Your task to perform on an android device: turn off data saver in the chrome app Image 0: 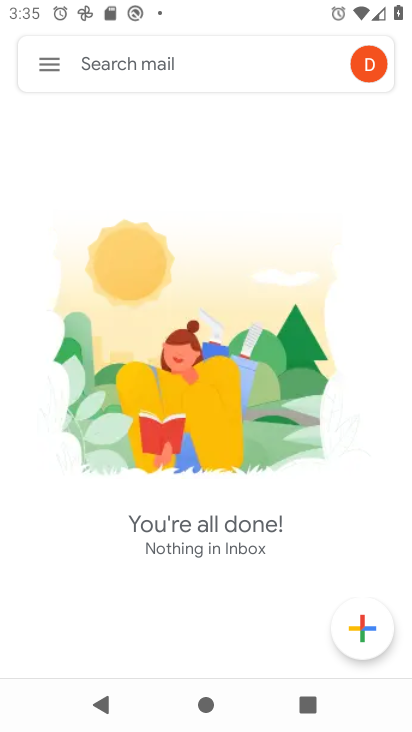
Step 0: press home button
Your task to perform on an android device: turn off data saver in the chrome app Image 1: 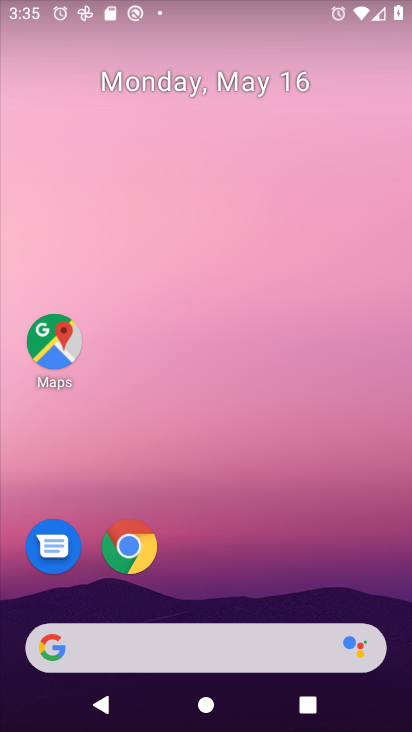
Step 1: drag from (363, 568) to (351, 173)
Your task to perform on an android device: turn off data saver in the chrome app Image 2: 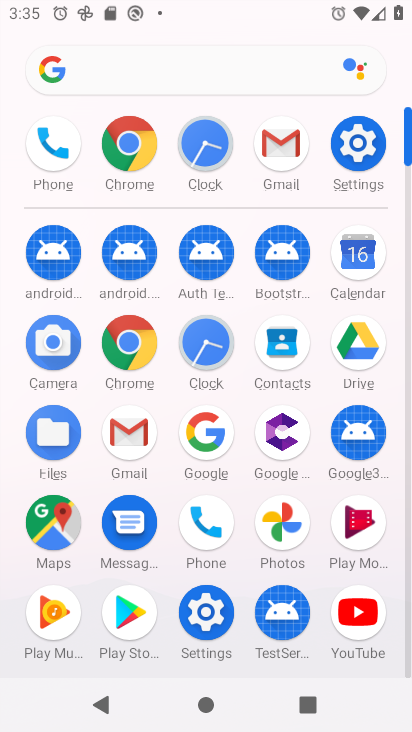
Step 2: click (135, 362)
Your task to perform on an android device: turn off data saver in the chrome app Image 3: 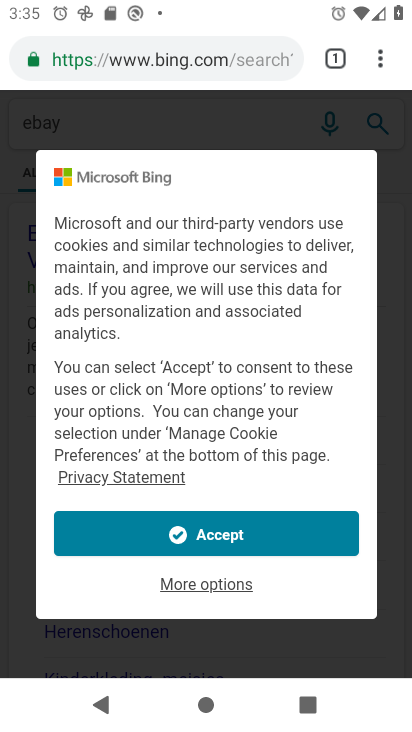
Step 3: click (378, 62)
Your task to perform on an android device: turn off data saver in the chrome app Image 4: 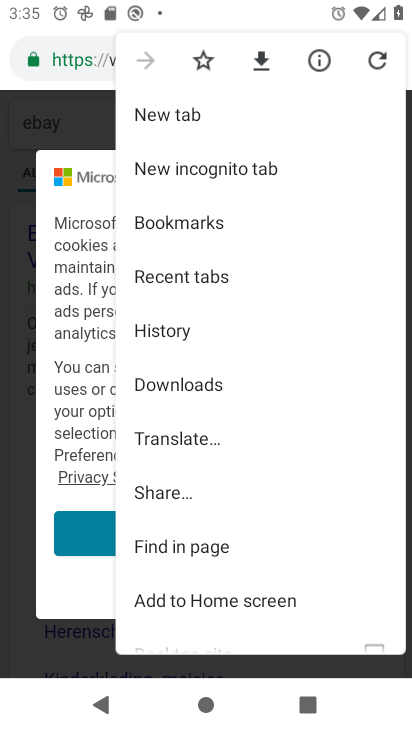
Step 4: drag from (333, 560) to (331, 374)
Your task to perform on an android device: turn off data saver in the chrome app Image 5: 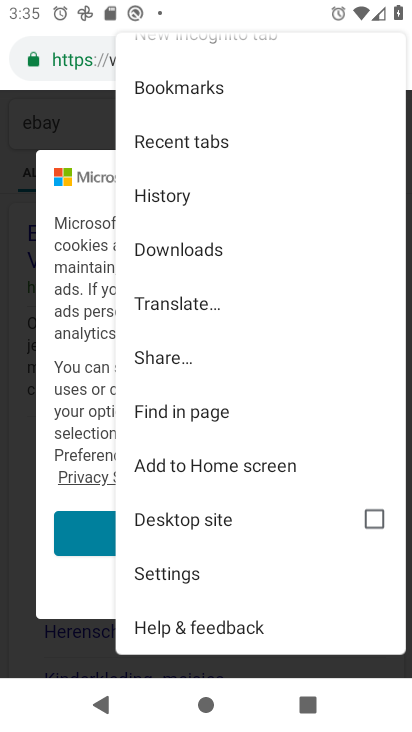
Step 5: drag from (316, 579) to (321, 391)
Your task to perform on an android device: turn off data saver in the chrome app Image 6: 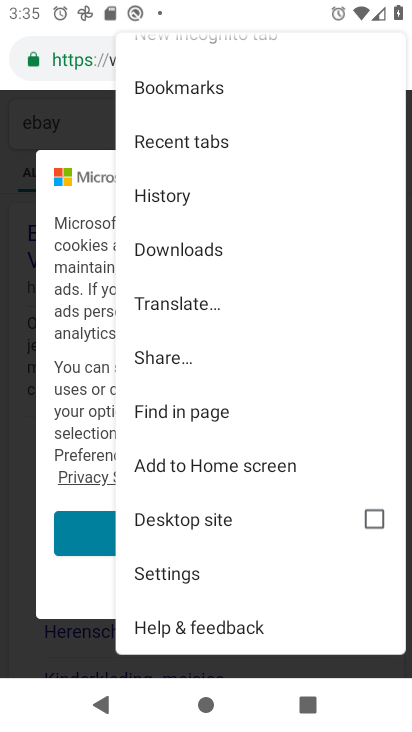
Step 6: click (195, 576)
Your task to perform on an android device: turn off data saver in the chrome app Image 7: 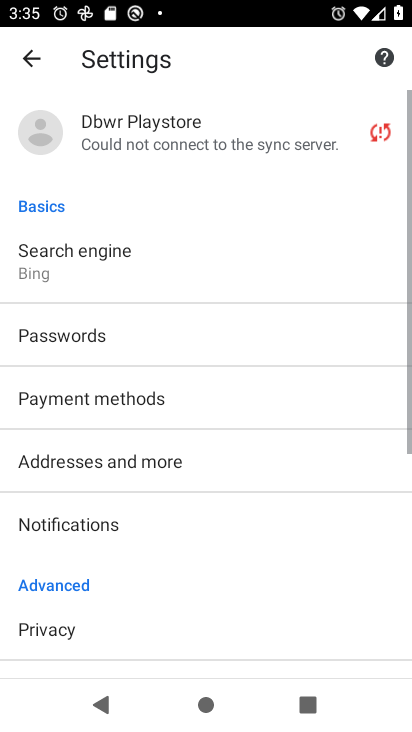
Step 7: drag from (301, 584) to (312, 445)
Your task to perform on an android device: turn off data saver in the chrome app Image 8: 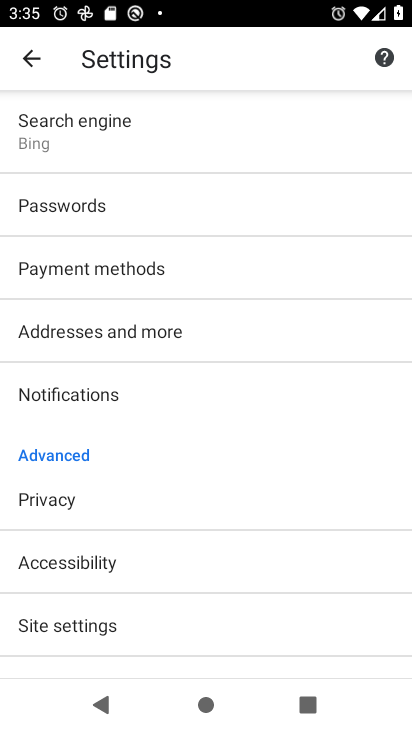
Step 8: drag from (298, 626) to (301, 454)
Your task to perform on an android device: turn off data saver in the chrome app Image 9: 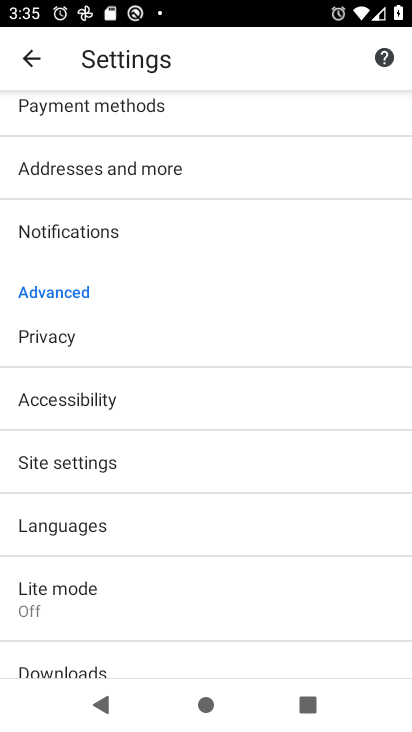
Step 9: drag from (286, 620) to (293, 487)
Your task to perform on an android device: turn off data saver in the chrome app Image 10: 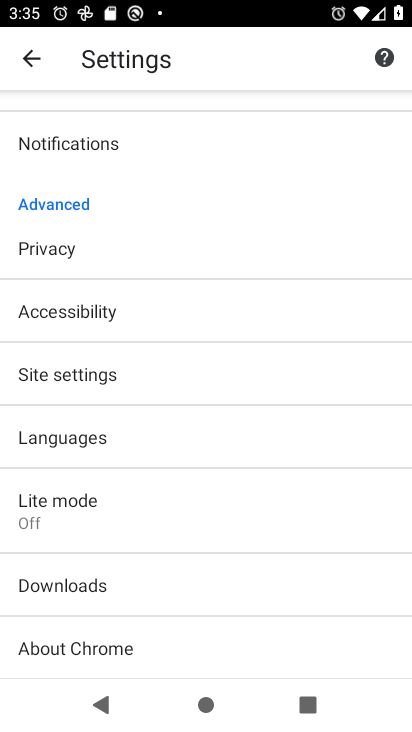
Step 10: drag from (291, 611) to (314, 455)
Your task to perform on an android device: turn off data saver in the chrome app Image 11: 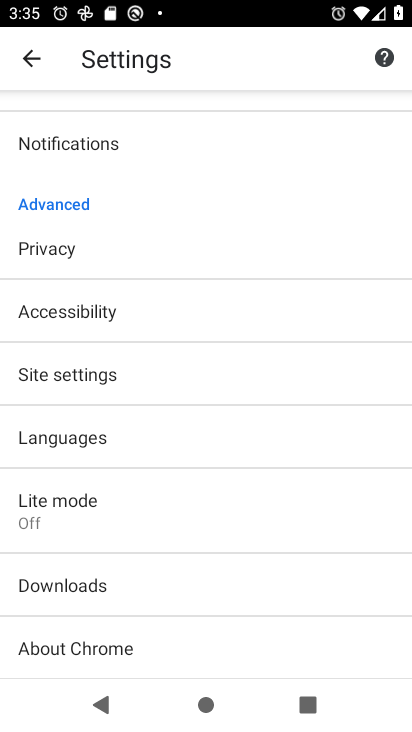
Step 11: drag from (310, 264) to (317, 363)
Your task to perform on an android device: turn off data saver in the chrome app Image 12: 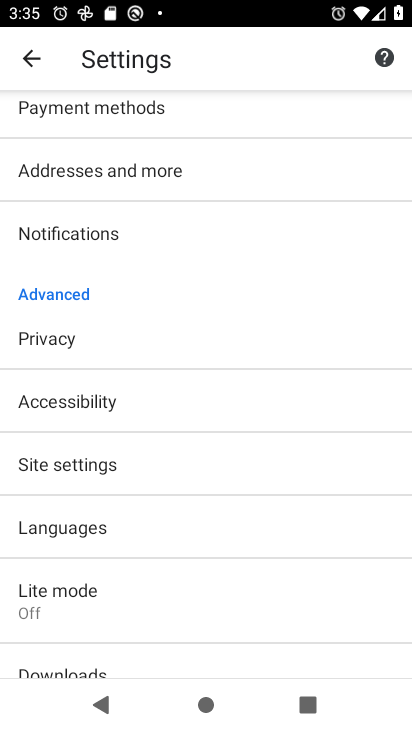
Step 12: drag from (325, 212) to (329, 387)
Your task to perform on an android device: turn off data saver in the chrome app Image 13: 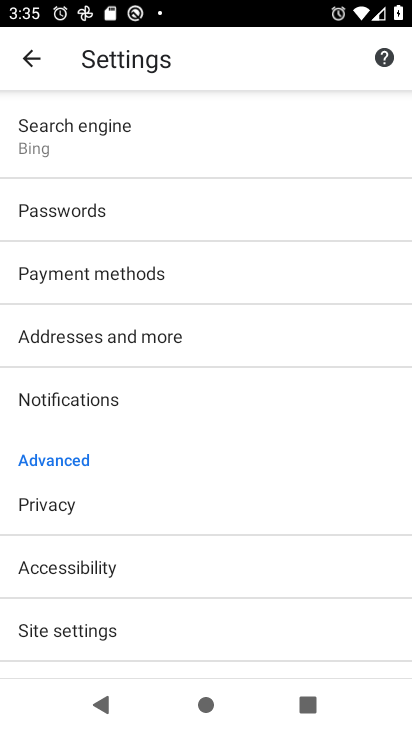
Step 13: drag from (336, 206) to (331, 449)
Your task to perform on an android device: turn off data saver in the chrome app Image 14: 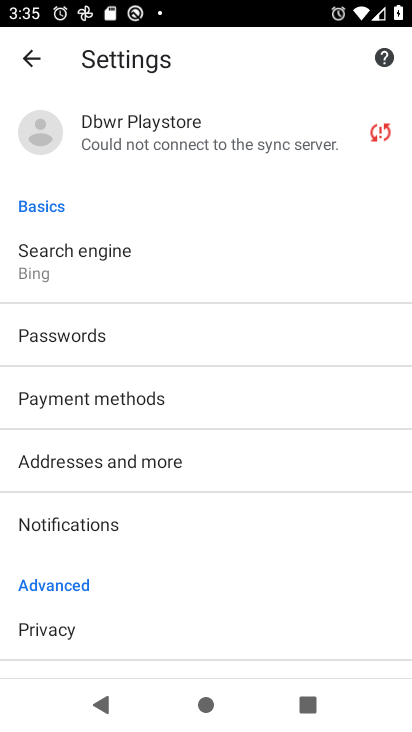
Step 14: drag from (297, 311) to (309, 419)
Your task to perform on an android device: turn off data saver in the chrome app Image 15: 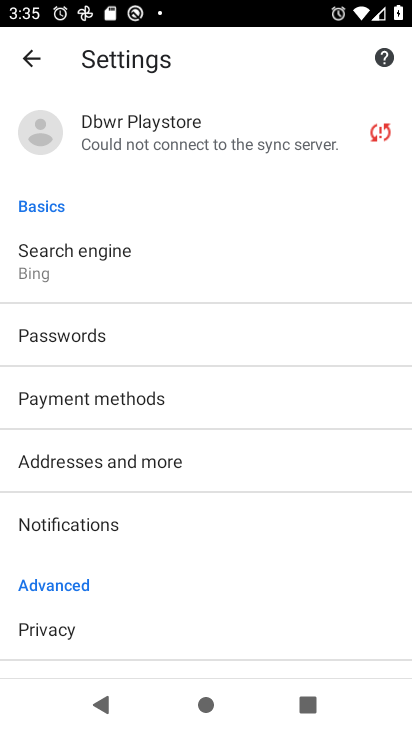
Step 15: drag from (270, 591) to (272, 381)
Your task to perform on an android device: turn off data saver in the chrome app Image 16: 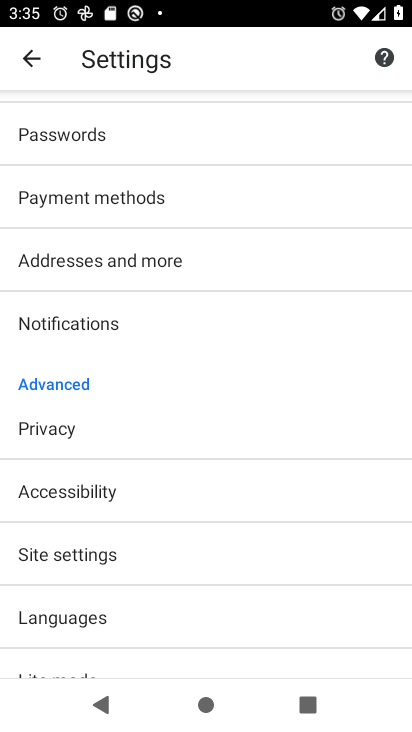
Step 16: drag from (276, 565) to (277, 395)
Your task to perform on an android device: turn off data saver in the chrome app Image 17: 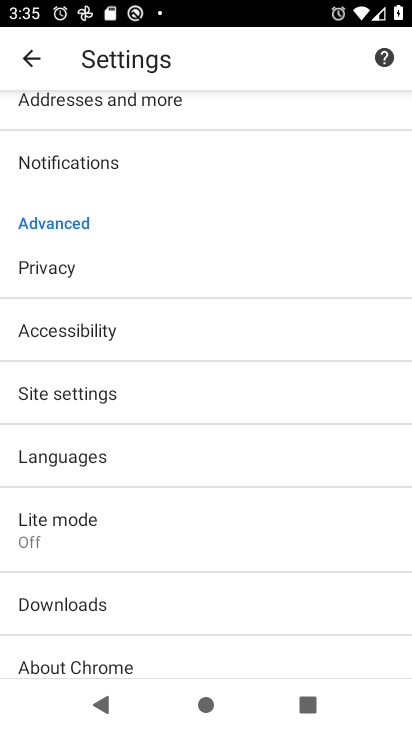
Step 17: click (250, 531)
Your task to perform on an android device: turn off data saver in the chrome app Image 18: 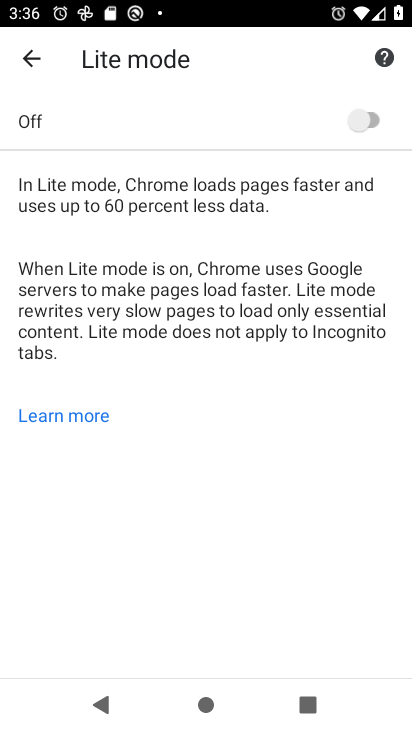
Step 18: task complete